Your task to perform on an android device: Go to Amazon Image 0: 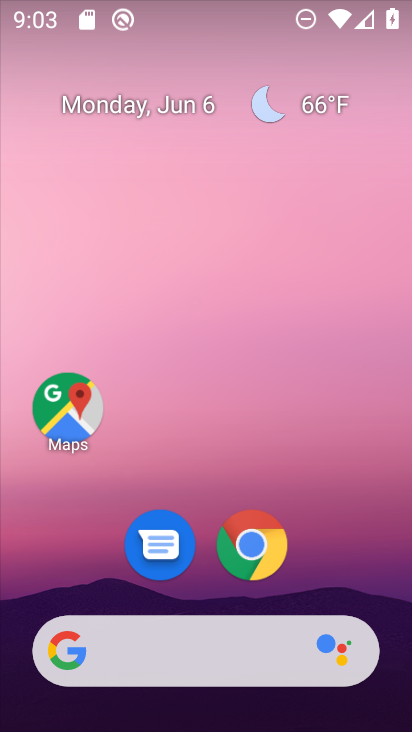
Step 0: click (253, 552)
Your task to perform on an android device: Go to Amazon Image 1: 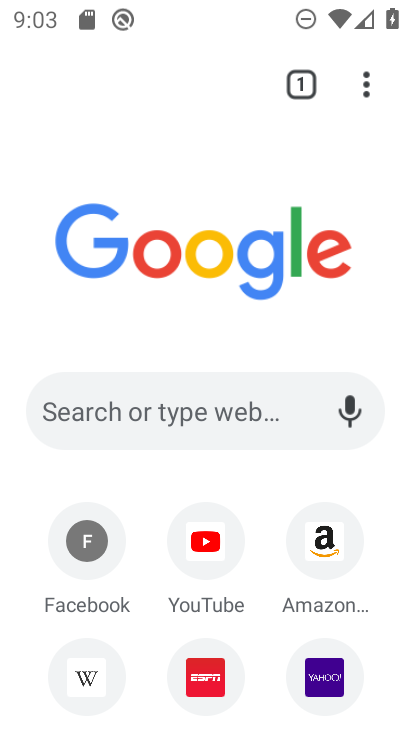
Step 1: click (331, 537)
Your task to perform on an android device: Go to Amazon Image 2: 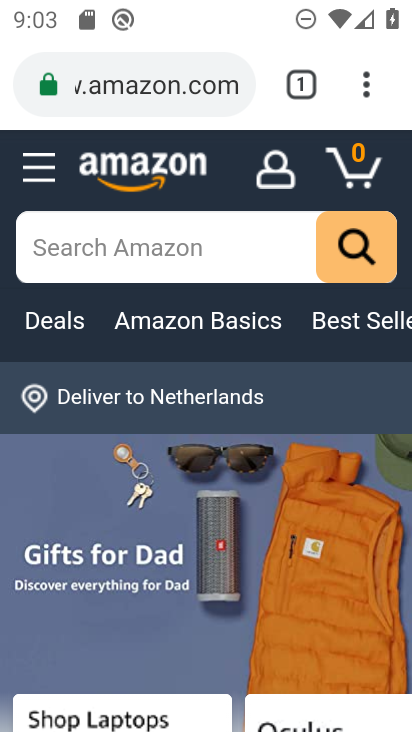
Step 2: task complete